Your task to perform on an android device: Search for the best selling TV on Best Buy. Image 0: 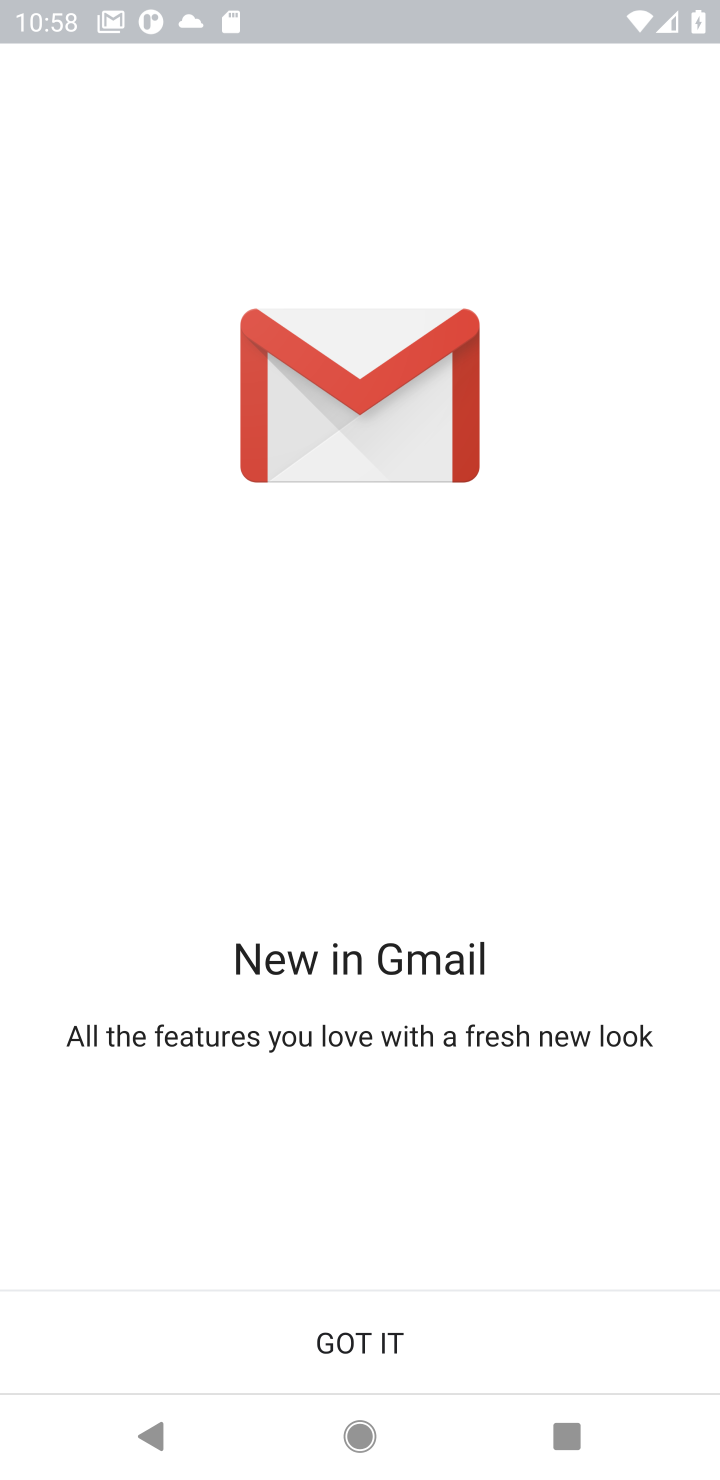
Step 0: press home button
Your task to perform on an android device: Search for the best selling TV on Best Buy. Image 1: 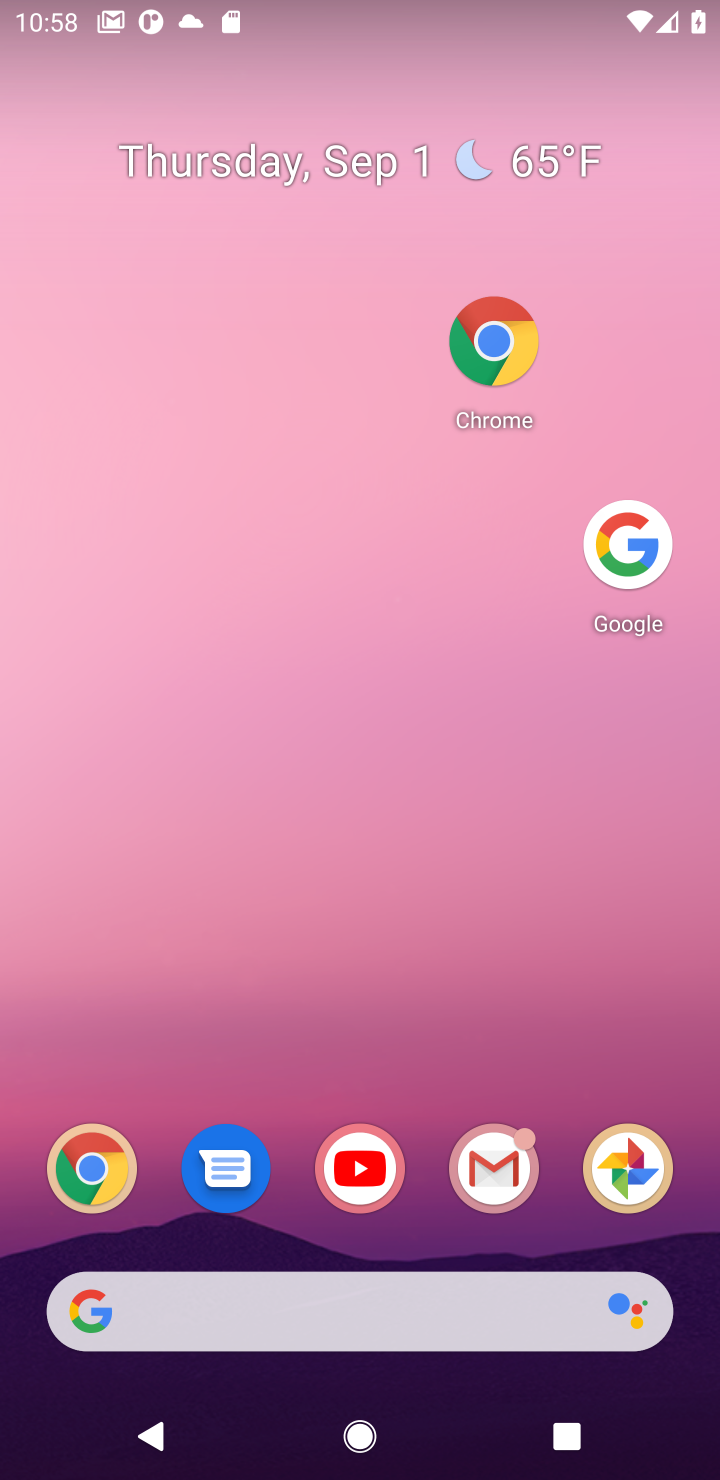
Step 1: click (615, 545)
Your task to perform on an android device: Search for the best selling TV on Best Buy. Image 2: 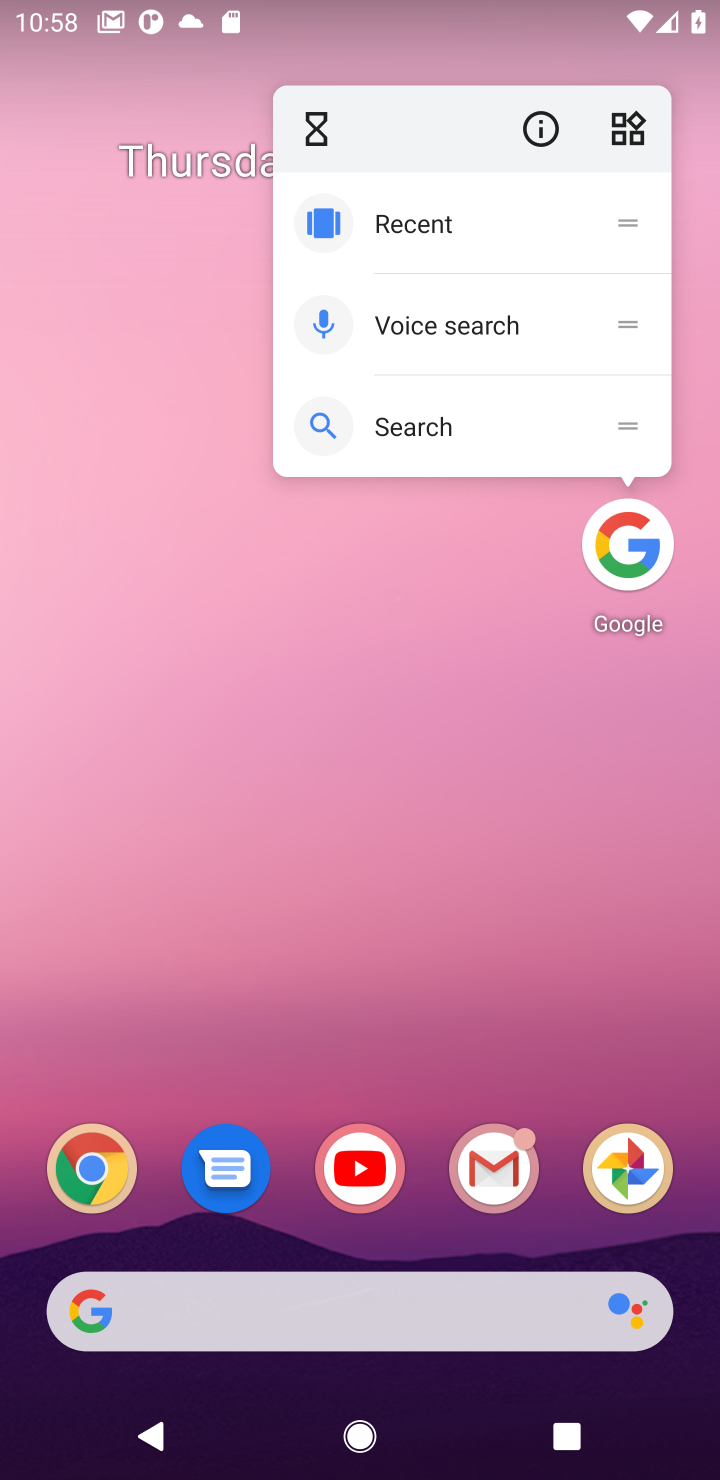
Step 2: click (641, 549)
Your task to perform on an android device: Search for the best selling TV on Best Buy. Image 3: 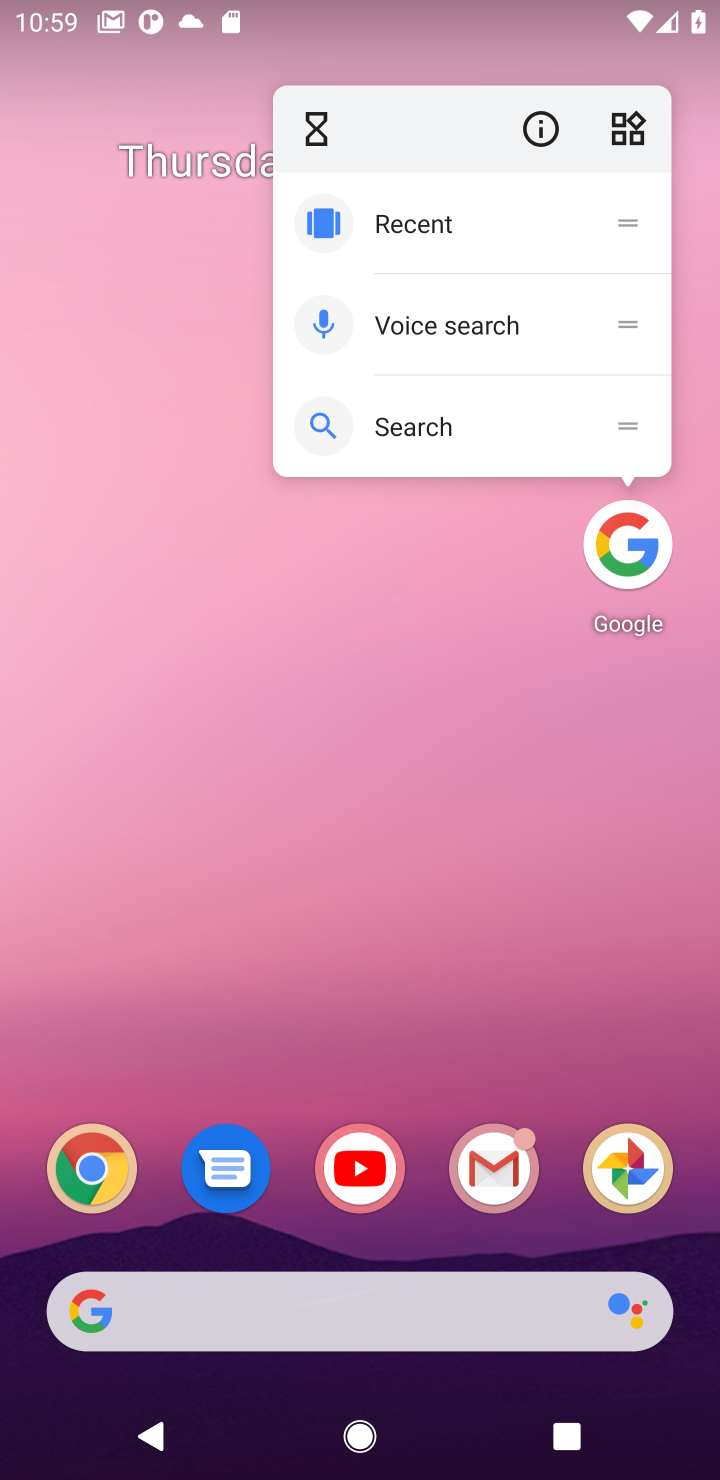
Step 3: click (590, 513)
Your task to perform on an android device: Search for the best selling TV on Best Buy. Image 4: 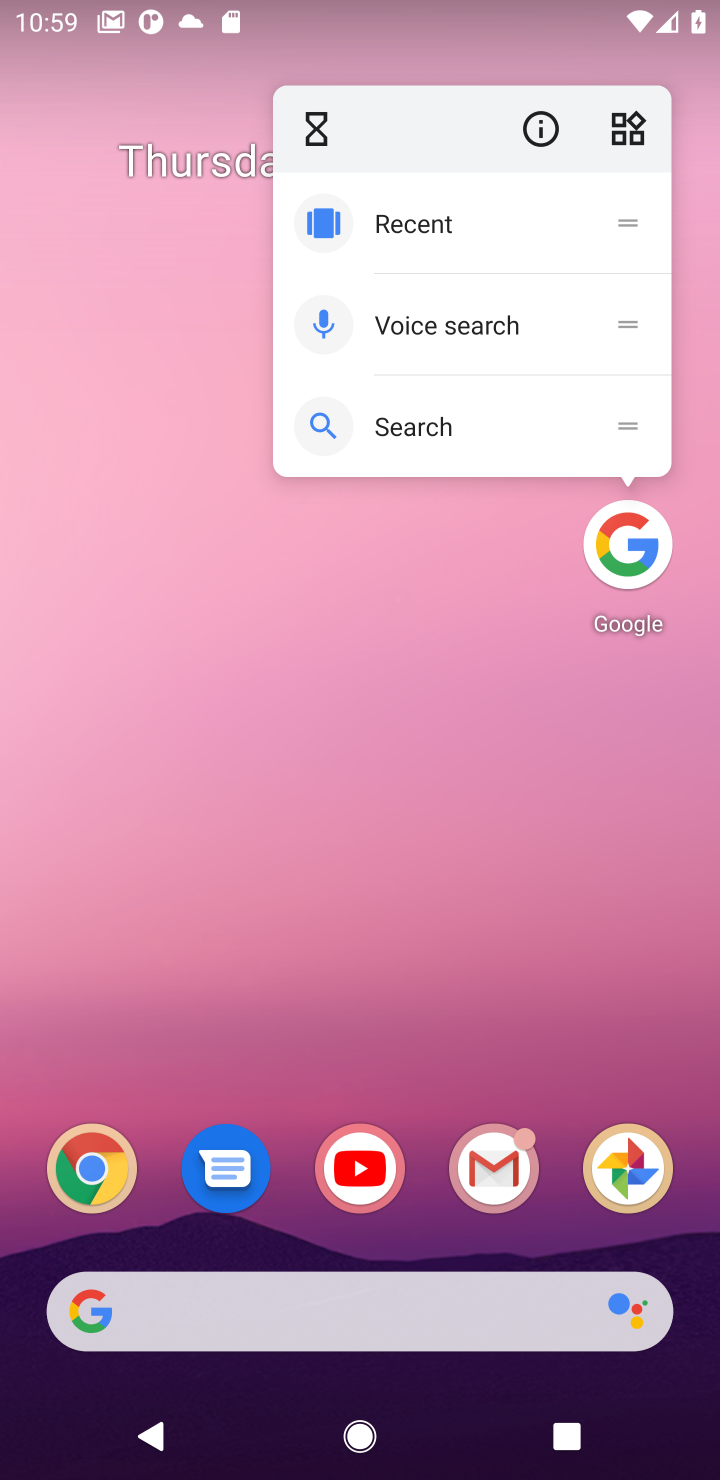
Step 4: click (625, 536)
Your task to perform on an android device: Search for the best selling TV on Best Buy. Image 5: 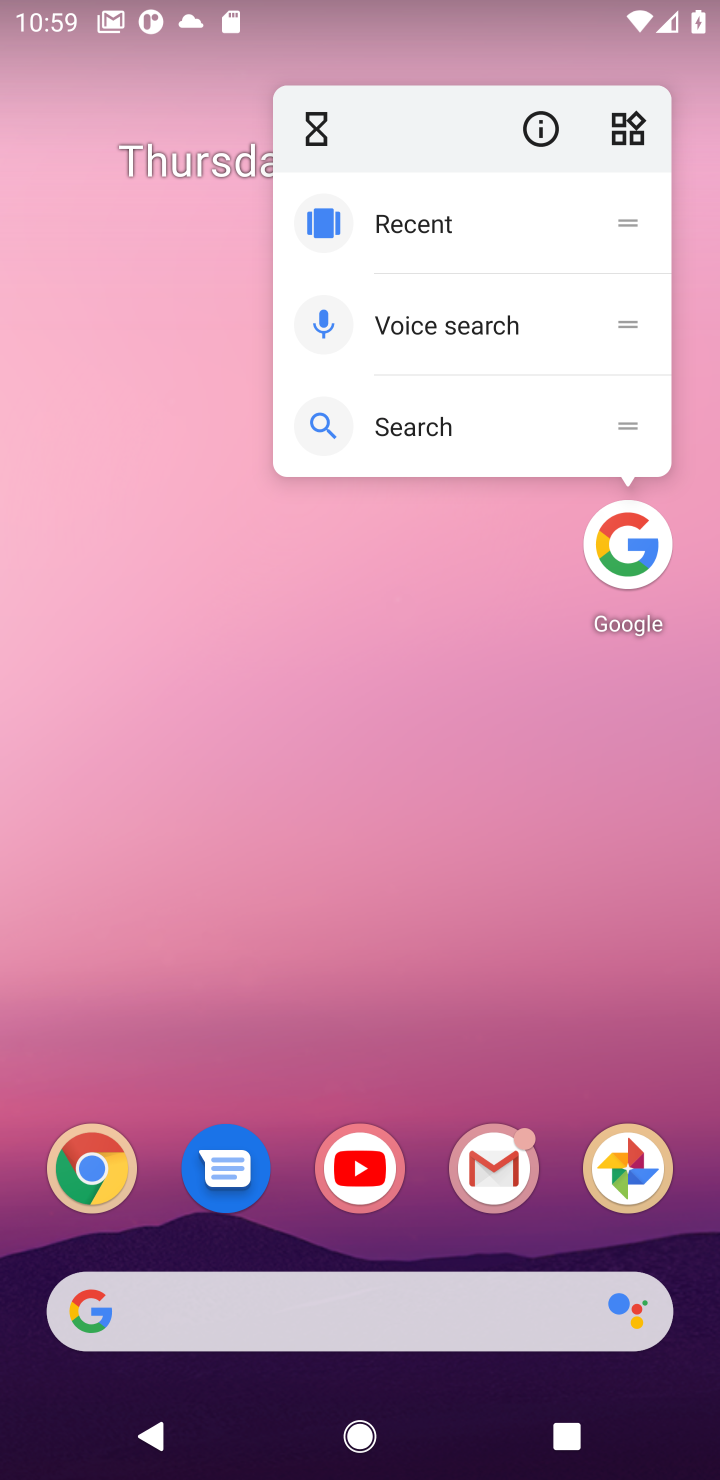
Step 5: click (625, 545)
Your task to perform on an android device: Search for the best selling TV on Best Buy. Image 6: 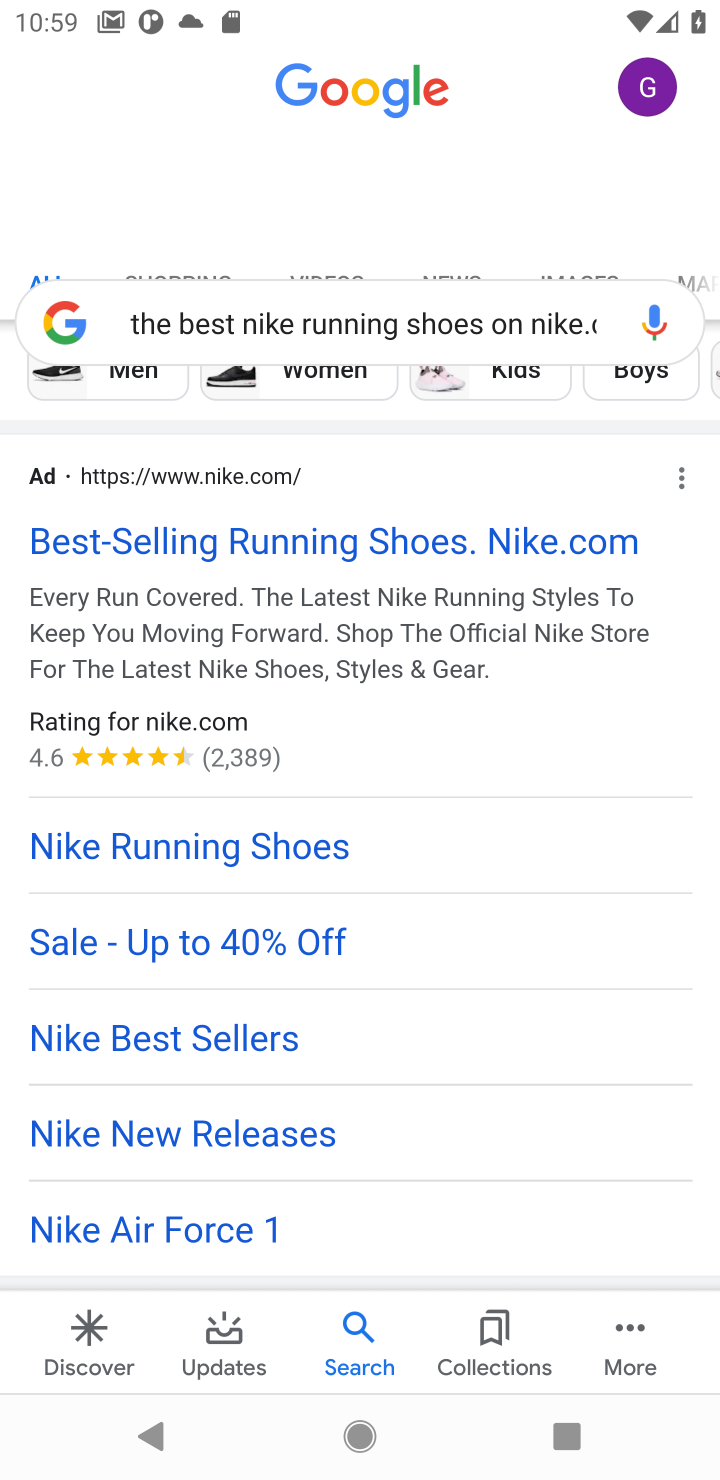
Step 6: click (477, 303)
Your task to perform on an android device: Search for the best selling TV on Best Buy. Image 7: 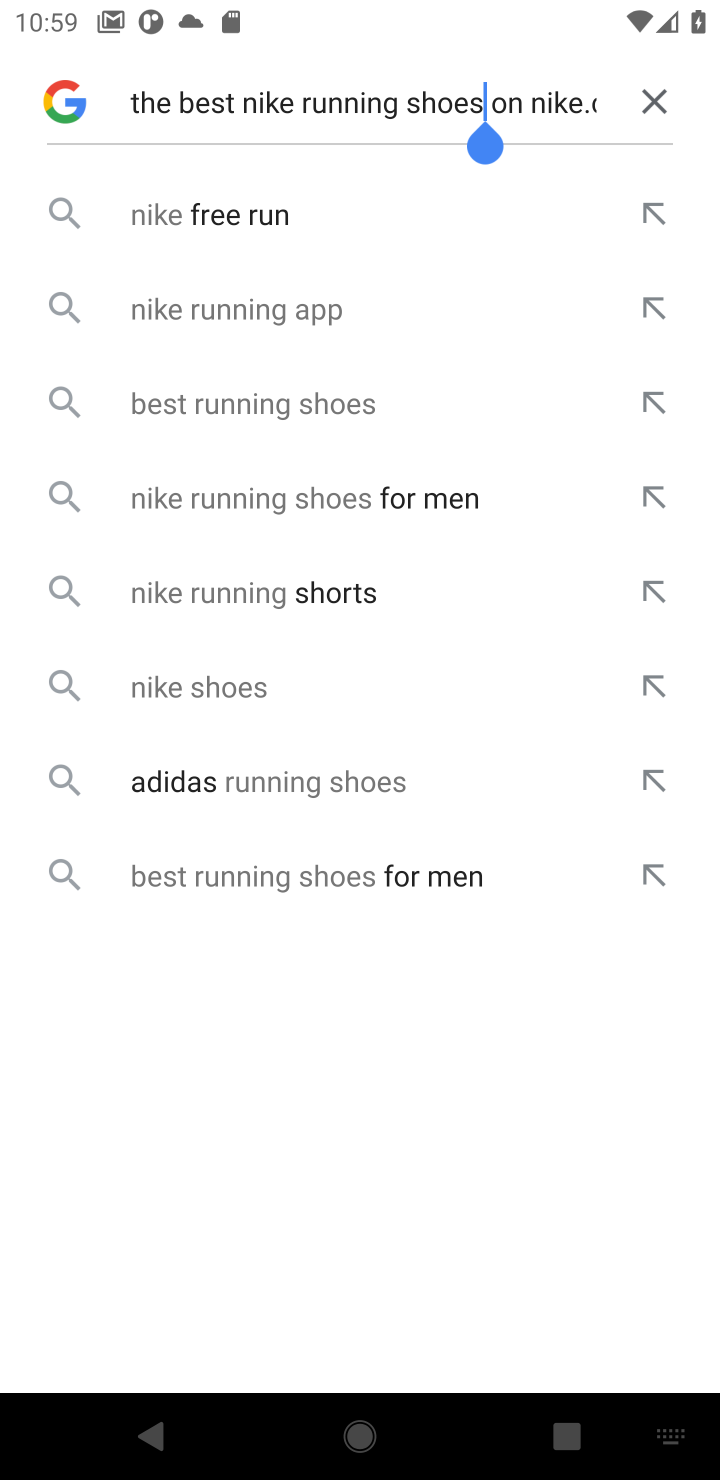
Step 7: click (652, 96)
Your task to perform on an android device: Search for the best selling TV on Best Buy. Image 8: 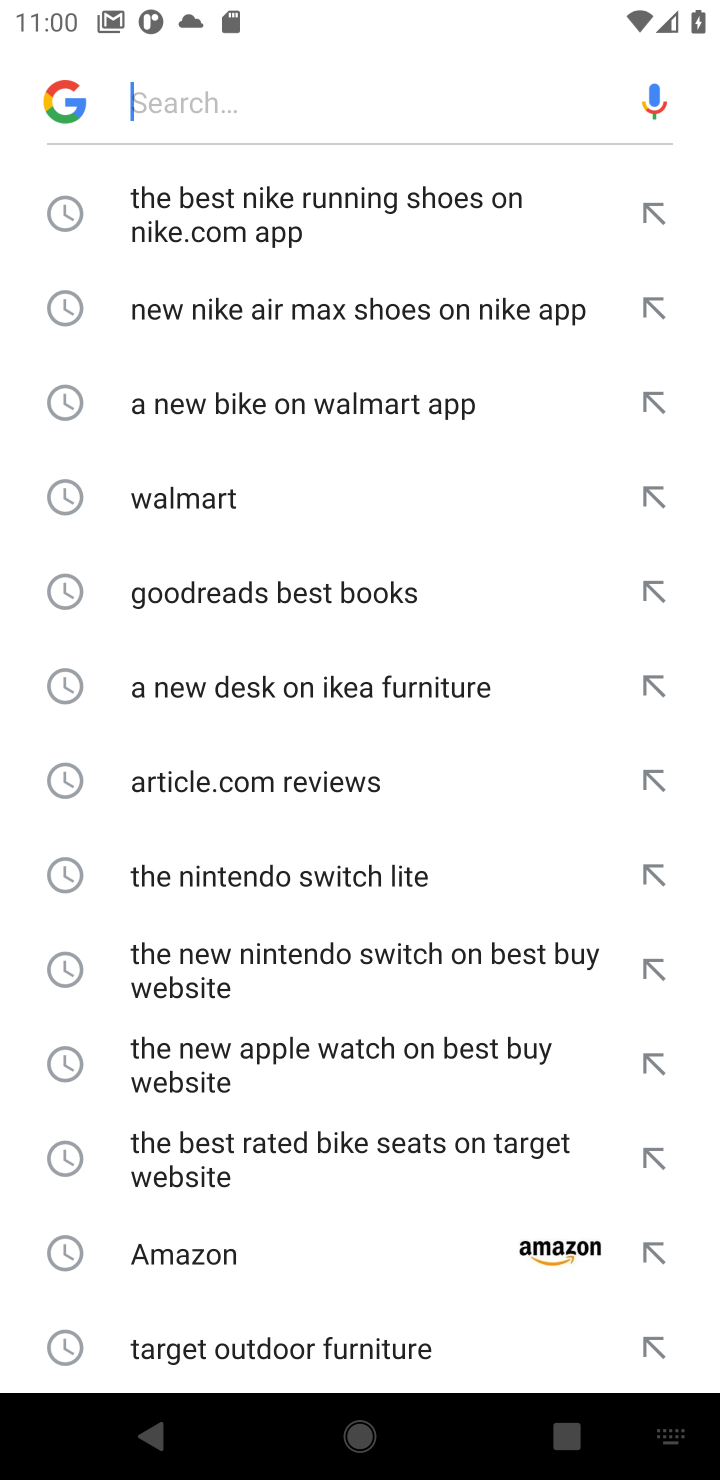
Step 8: click (247, 111)
Your task to perform on an android device: Search for the best selling TV on Best Buy. Image 9: 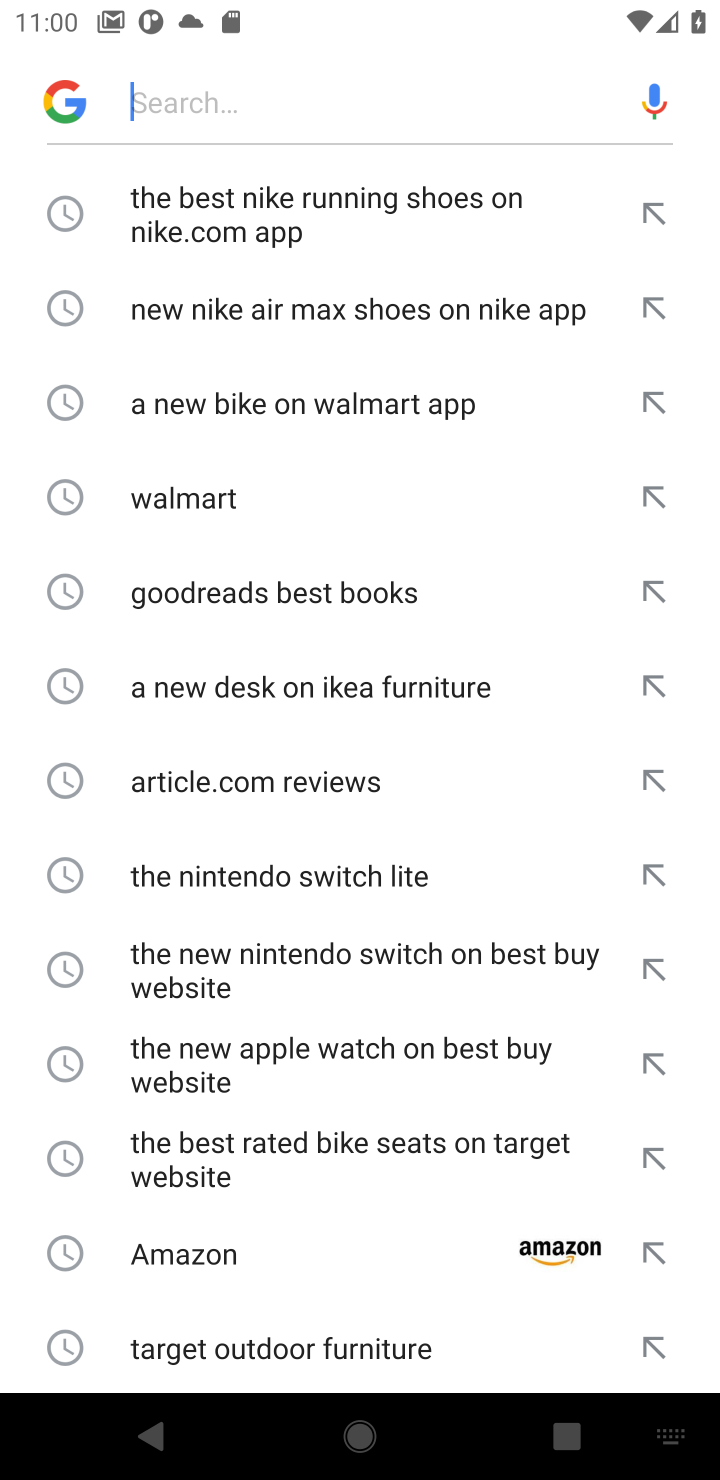
Step 9: type " the best selling TV on Best Buy "
Your task to perform on an android device: Search for the best selling TV on Best Buy. Image 10: 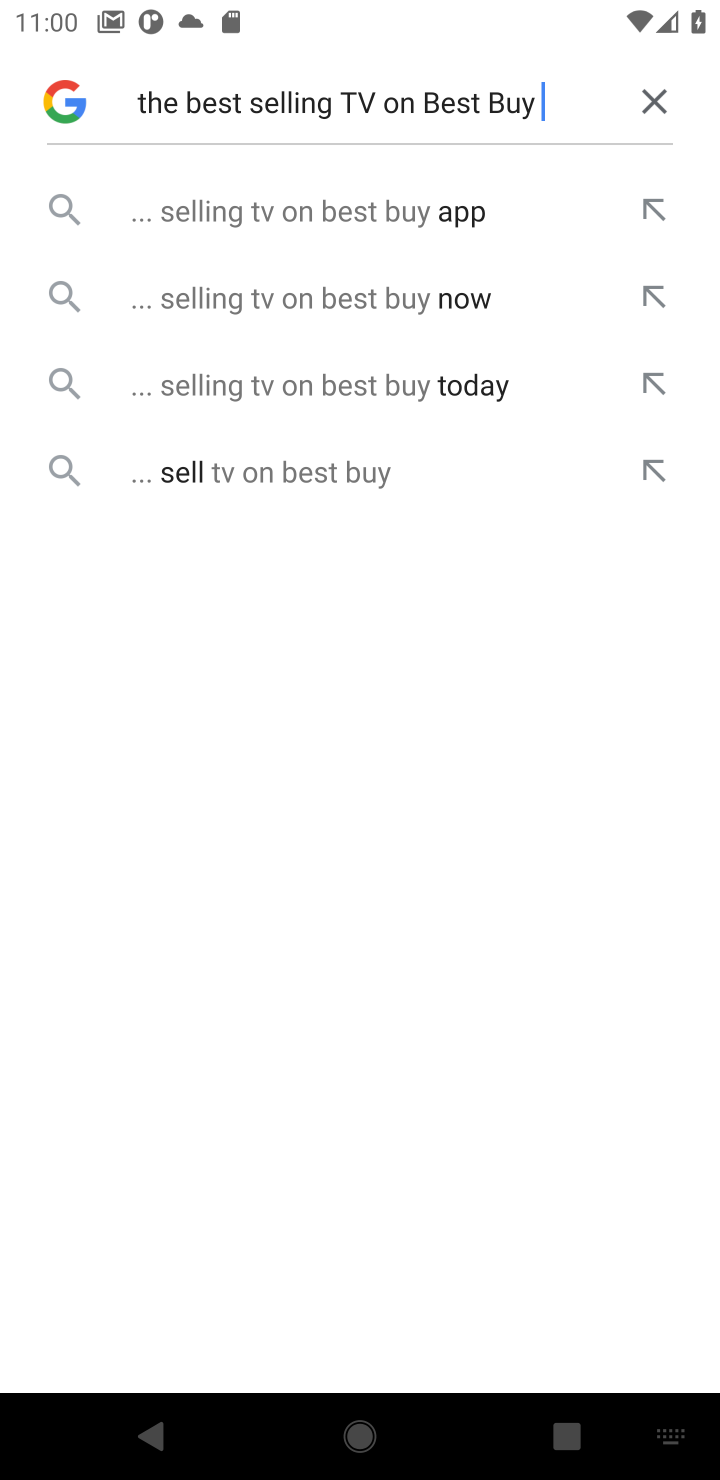
Step 10: click (395, 196)
Your task to perform on an android device: Search for the best selling TV on Best Buy. Image 11: 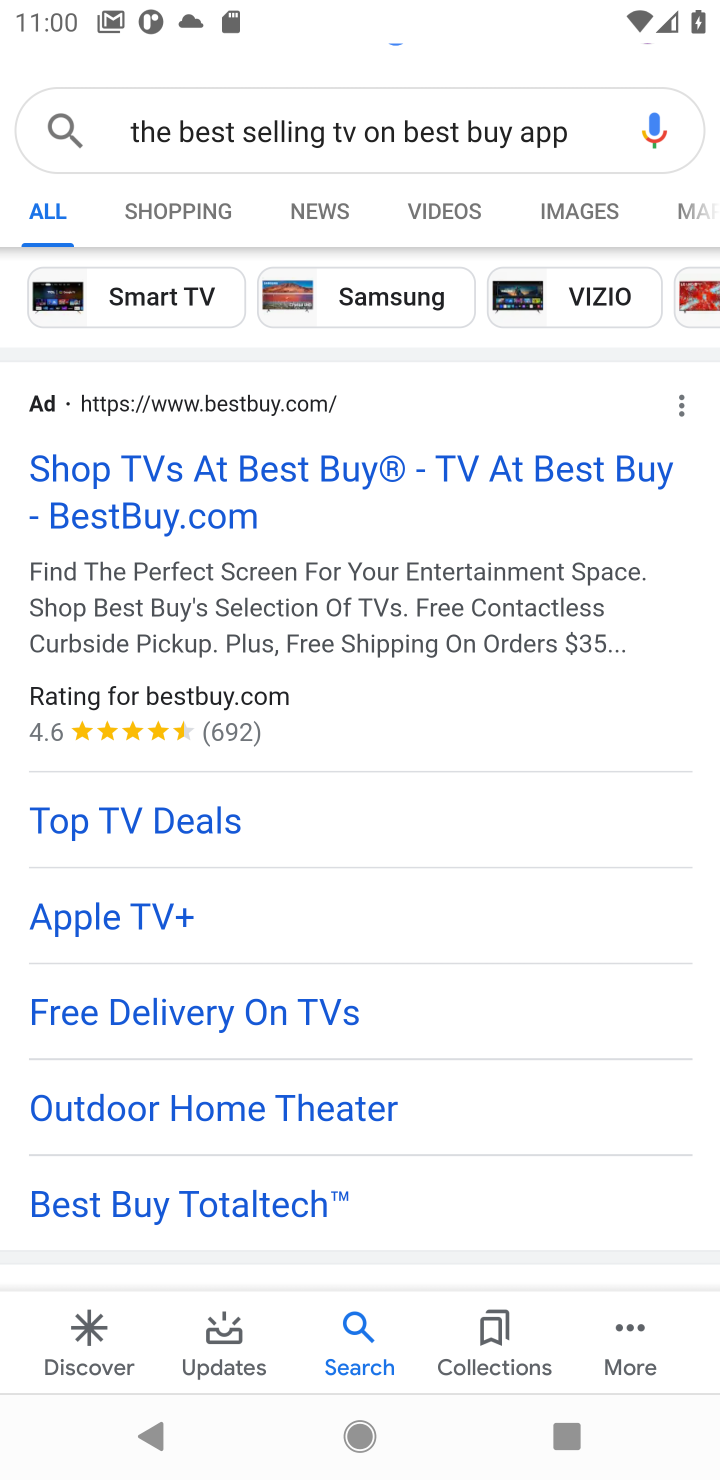
Step 11: click (357, 462)
Your task to perform on an android device: Search for the best selling TV on Best Buy. Image 12: 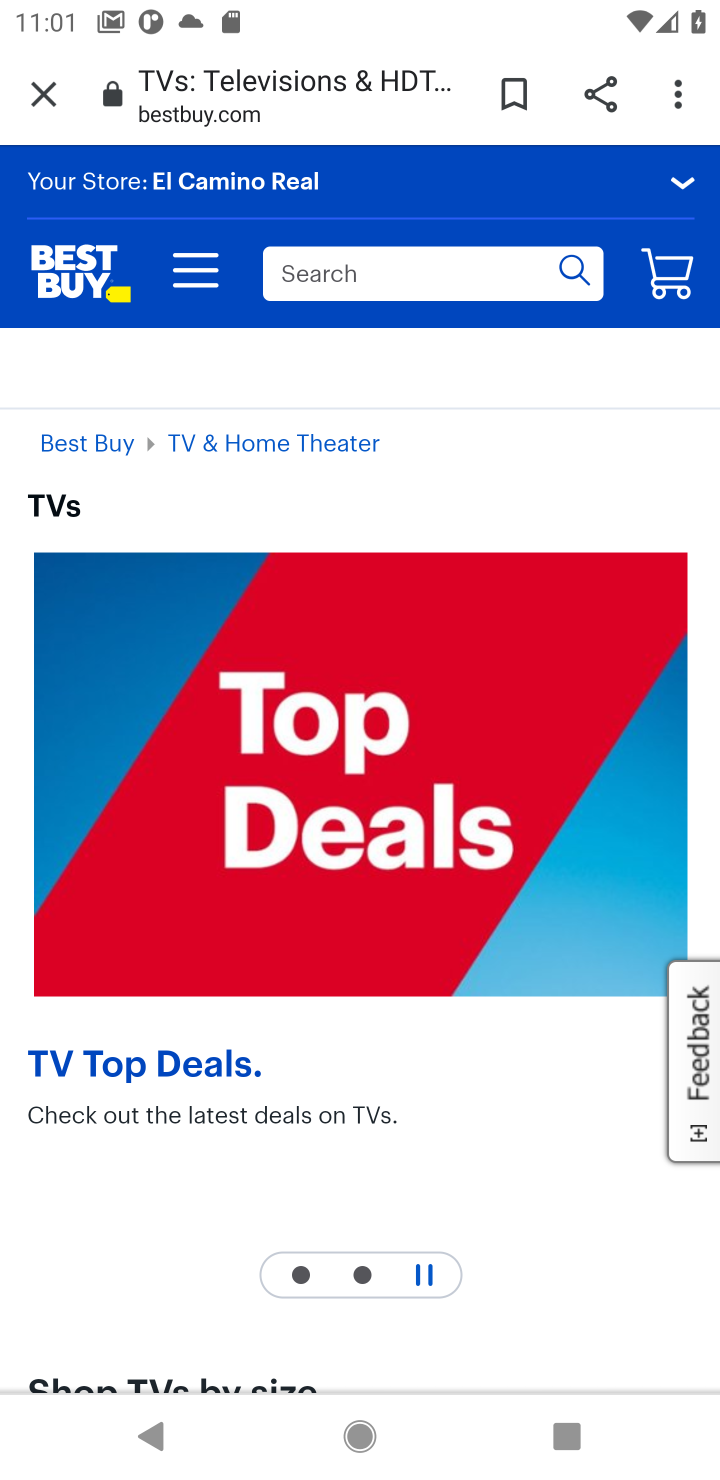
Step 12: task complete